Your task to perform on an android device: Open the map Image 0: 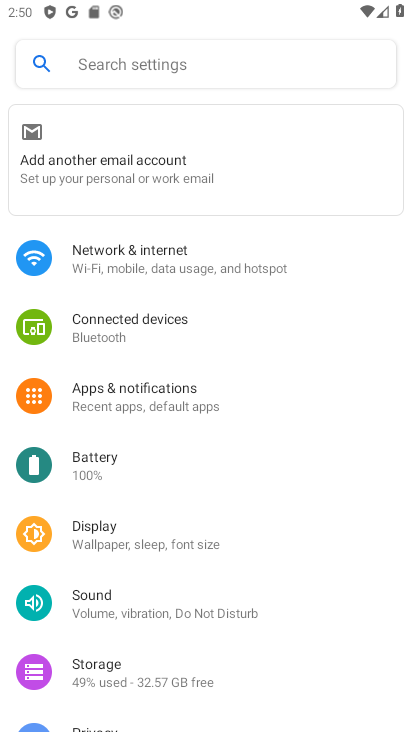
Step 0: press home button
Your task to perform on an android device: Open the map Image 1: 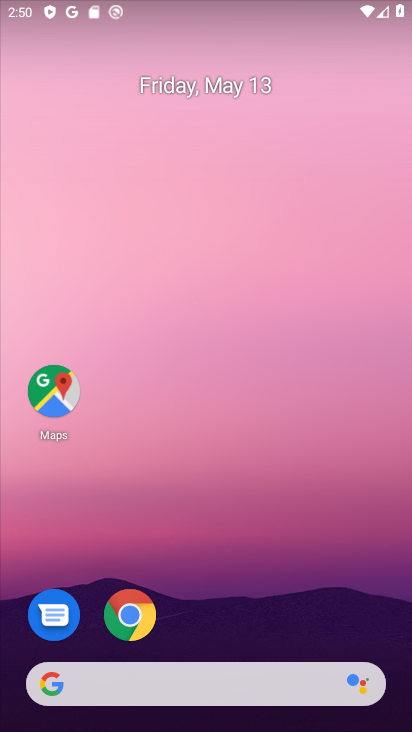
Step 1: click (58, 409)
Your task to perform on an android device: Open the map Image 2: 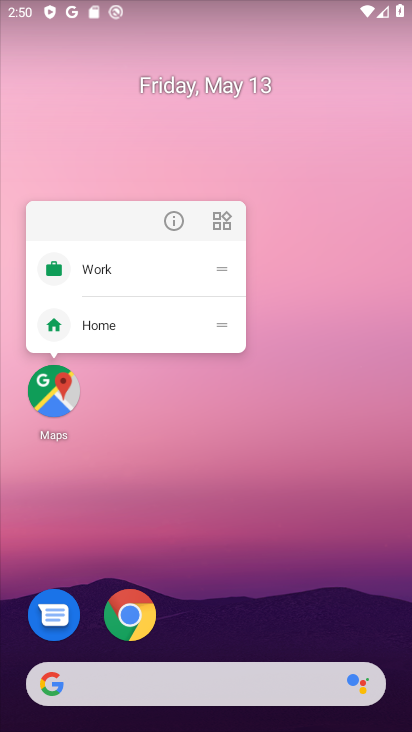
Step 2: click (59, 402)
Your task to perform on an android device: Open the map Image 3: 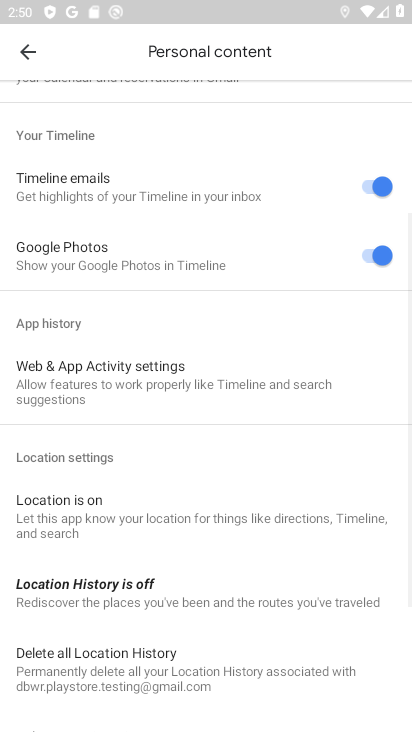
Step 3: click (35, 61)
Your task to perform on an android device: Open the map Image 4: 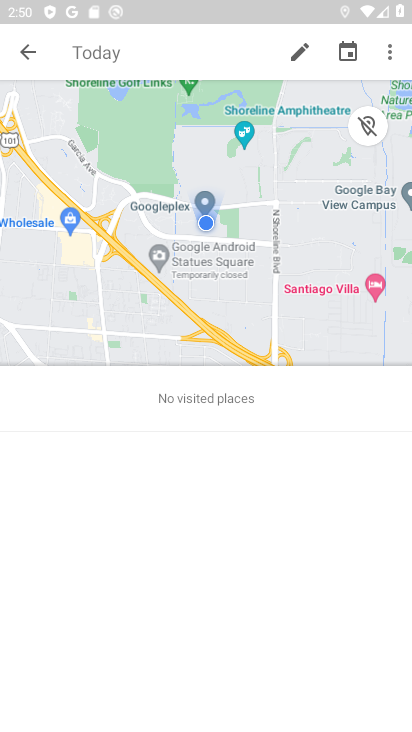
Step 4: click (35, 61)
Your task to perform on an android device: Open the map Image 5: 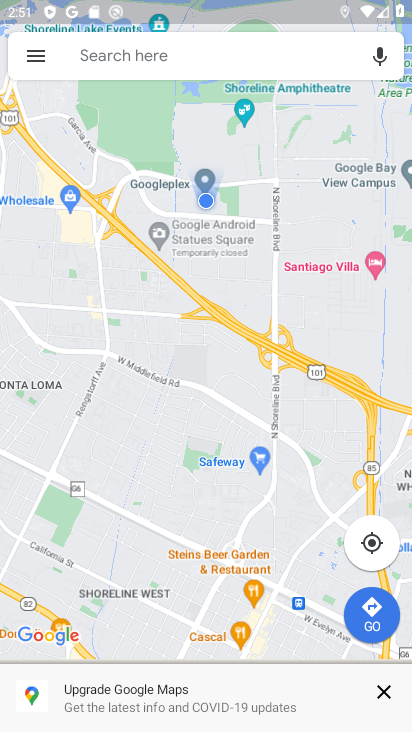
Step 5: task complete